Your task to perform on an android device: install app "DoorDash - Dasher" Image 0: 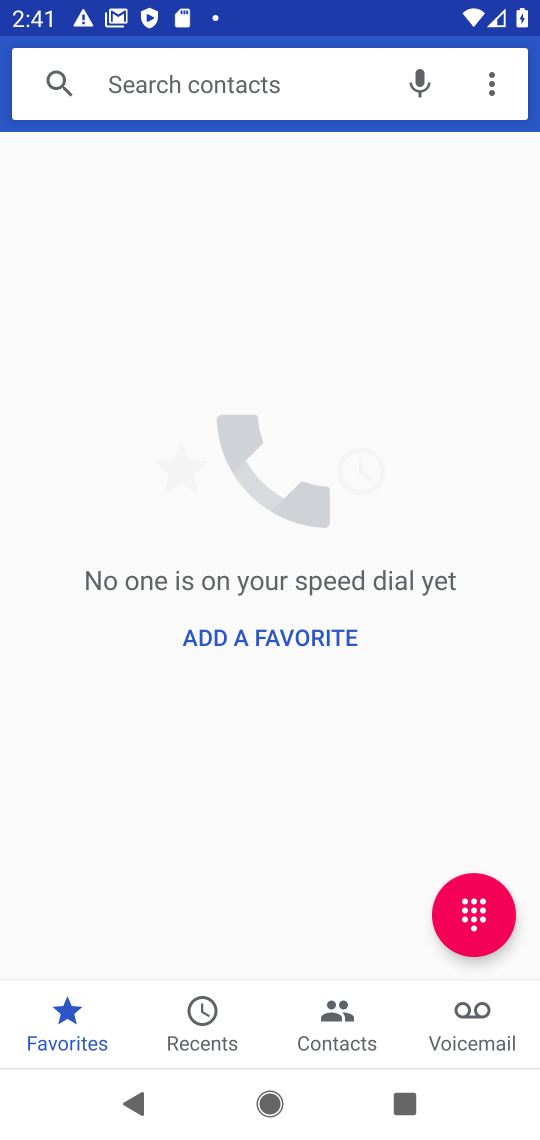
Step 0: press home button
Your task to perform on an android device: install app "DoorDash - Dasher" Image 1: 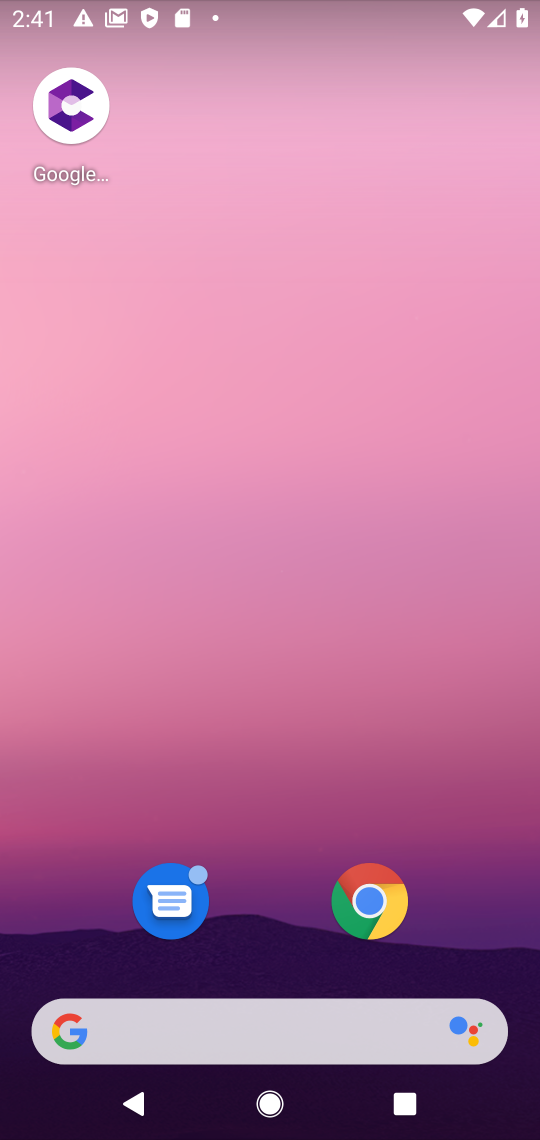
Step 1: drag from (439, 875) to (372, 179)
Your task to perform on an android device: install app "DoorDash - Dasher" Image 2: 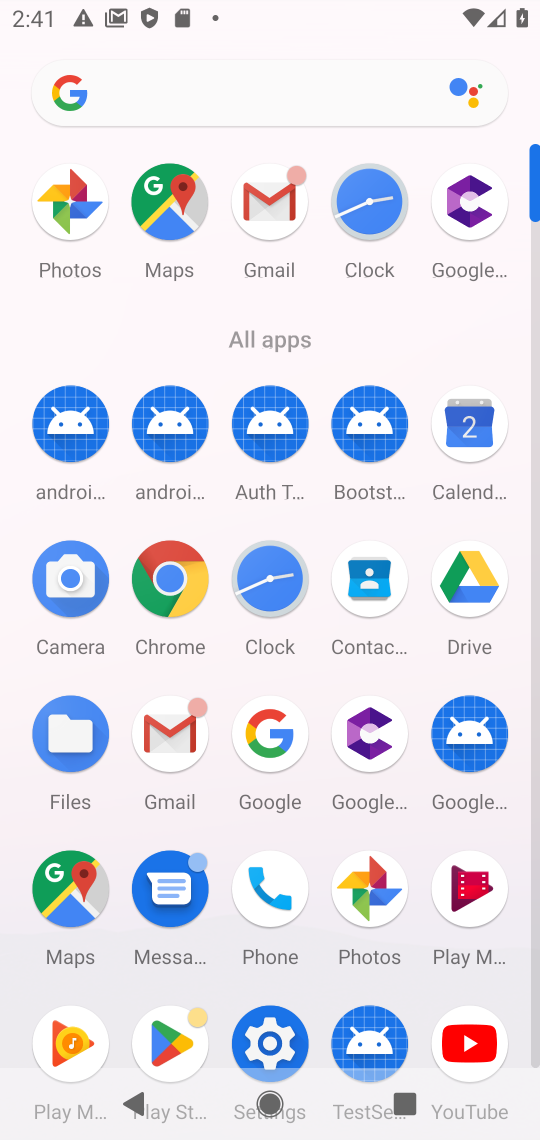
Step 2: drag from (329, 836) to (326, 332)
Your task to perform on an android device: install app "DoorDash - Dasher" Image 3: 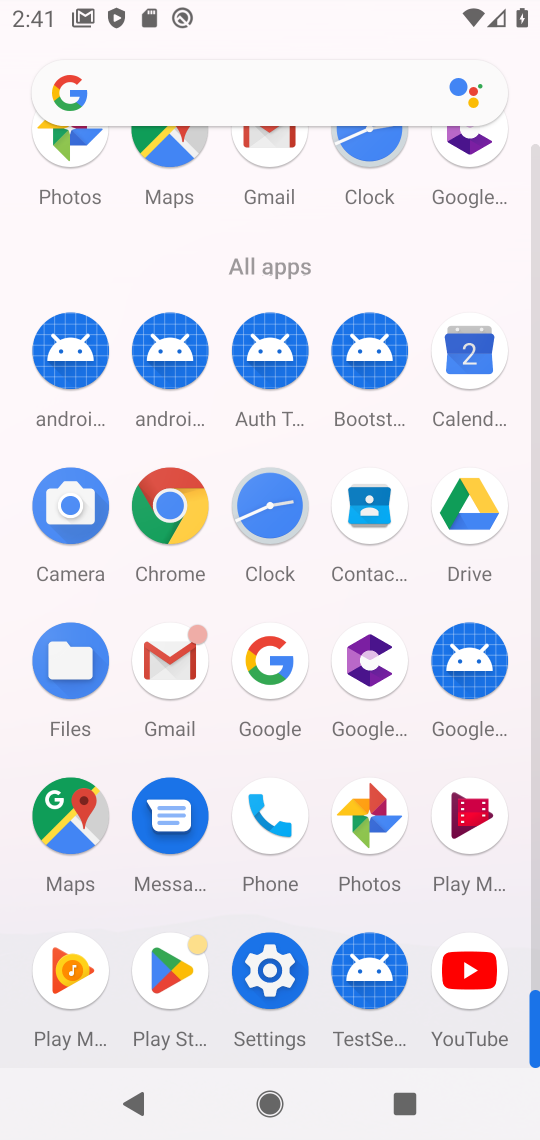
Step 3: click (180, 964)
Your task to perform on an android device: install app "DoorDash - Dasher" Image 4: 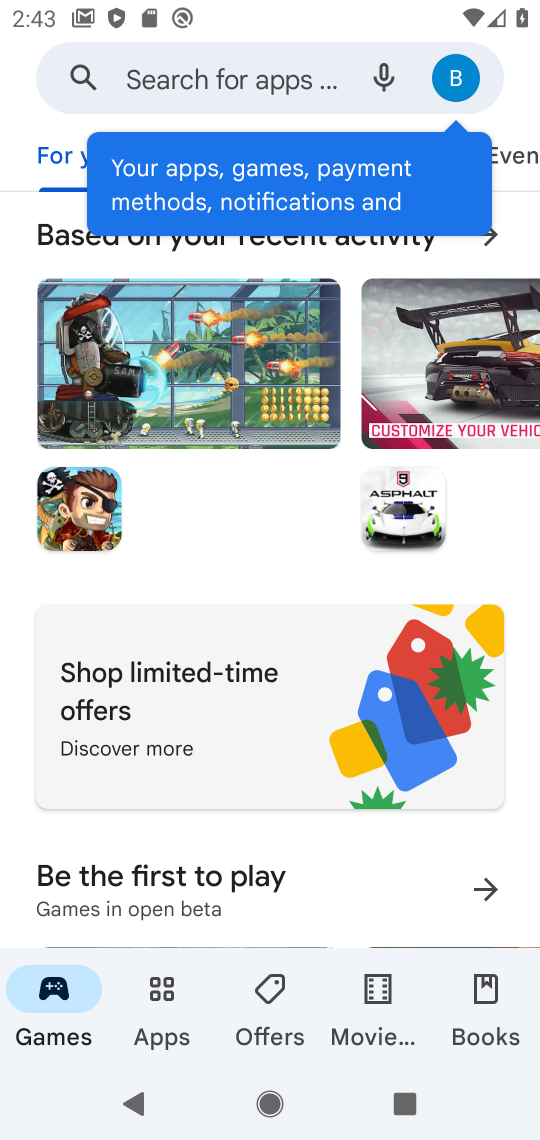
Step 4: click (260, 87)
Your task to perform on an android device: install app "DoorDash - Dasher" Image 5: 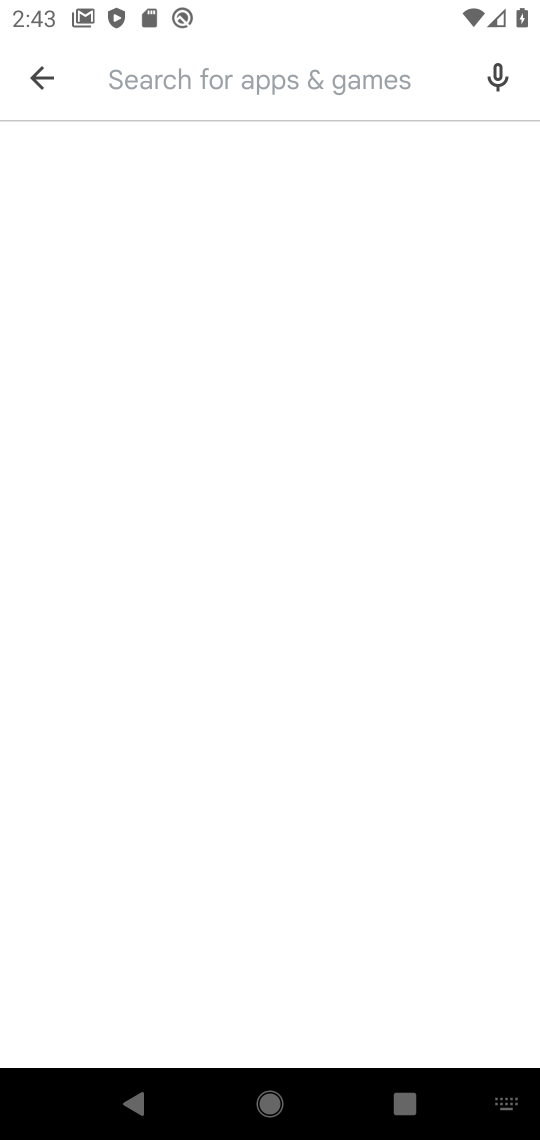
Step 5: type "doordash - dasher"
Your task to perform on an android device: install app "DoorDash - Dasher" Image 6: 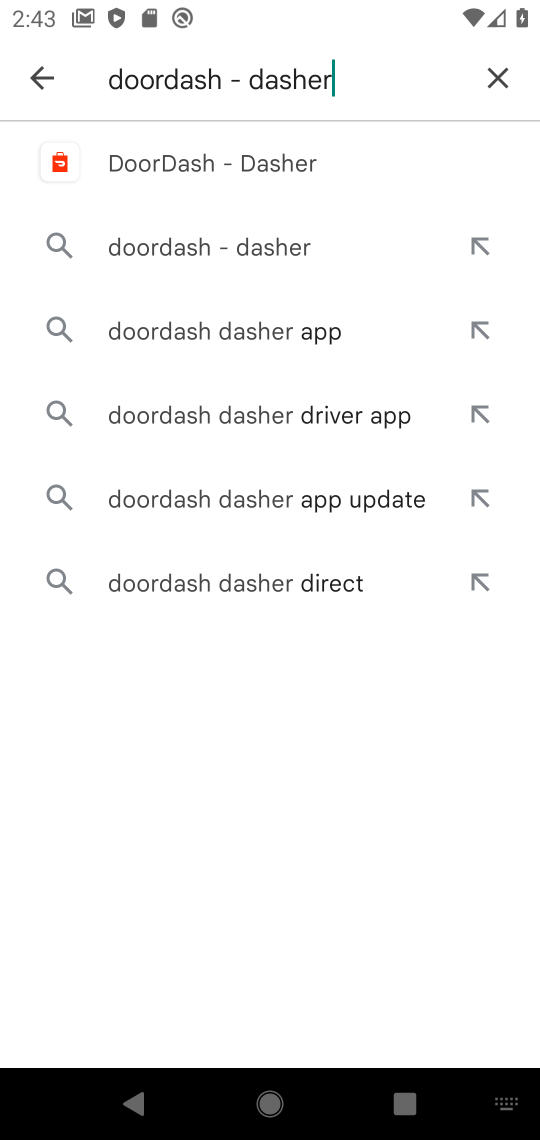
Step 6: click (200, 162)
Your task to perform on an android device: install app "DoorDash - Dasher" Image 7: 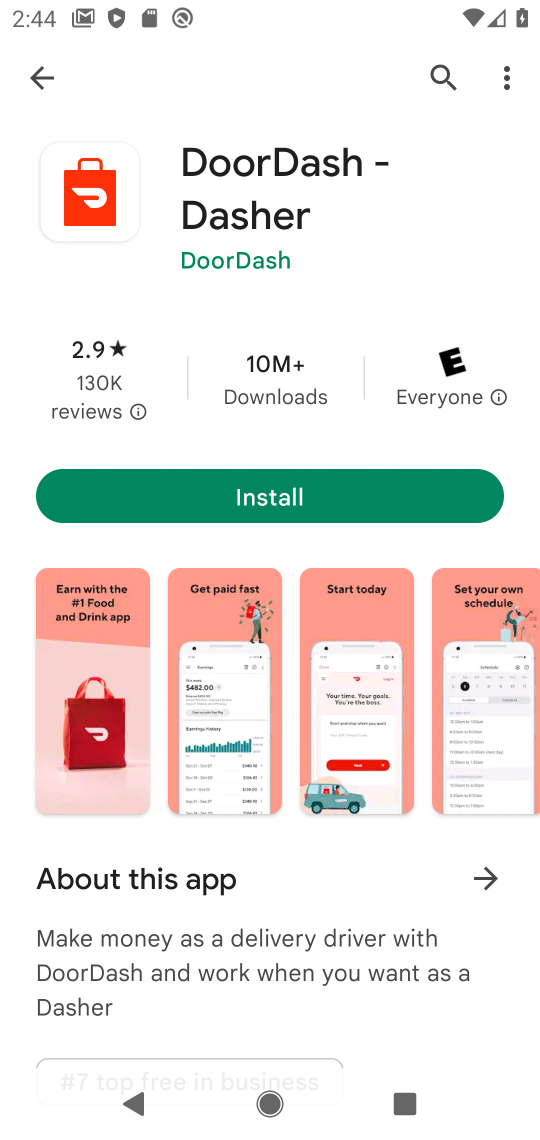
Step 7: click (280, 473)
Your task to perform on an android device: install app "DoorDash - Dasher" Image 8: 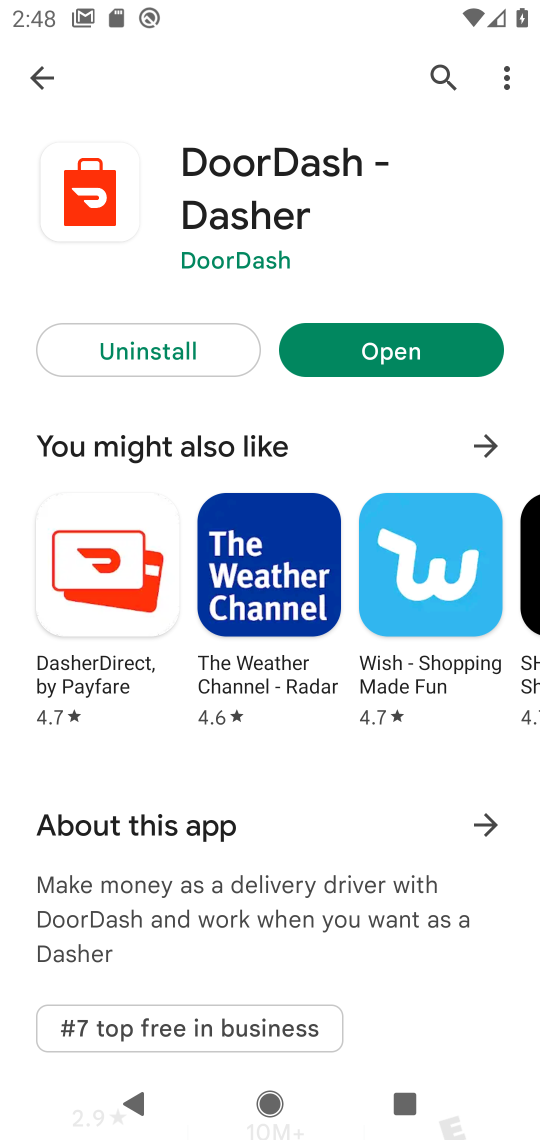
Step 8: task complete